Your task to perform on an android device: Open the map Image 0: 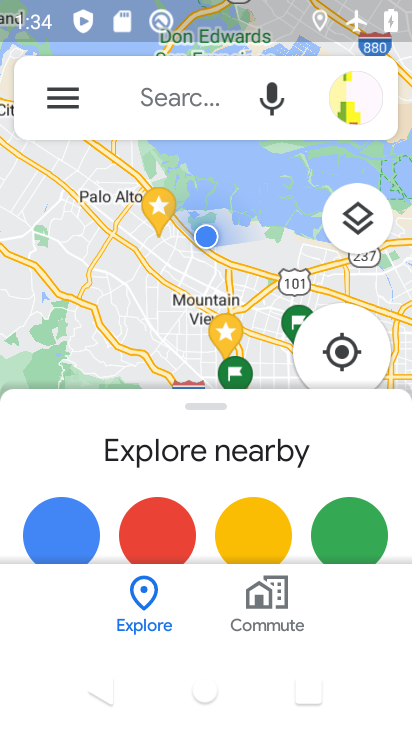
Step 0: drag from (200, 479) to (211, 94)
Your task to perform on an android device: Open the map Image 1: 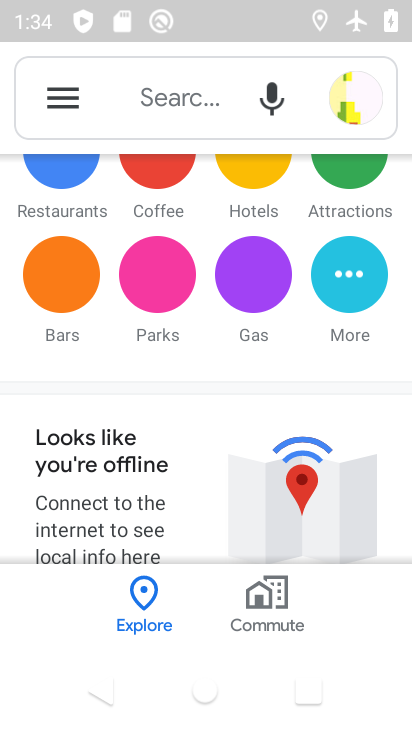
Step 1: task complete